Your task to perform on an android device: Do I have any events tomorrow? Image 0: 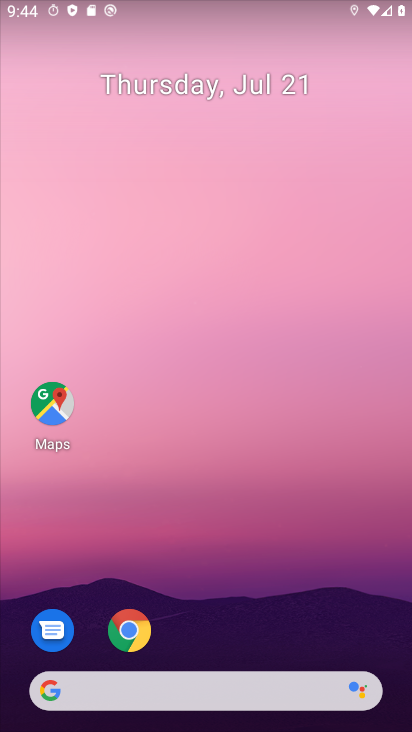
Step 0: press back button
Your task to perform on an android device: Do I have any events tomorrow? Image 1: 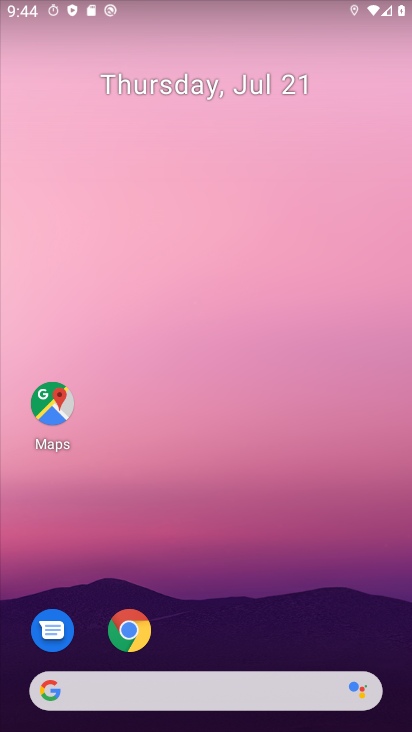
Step 1: press home button
Your task to perform on an android device: Do I have any events tomorrow? Image 2: 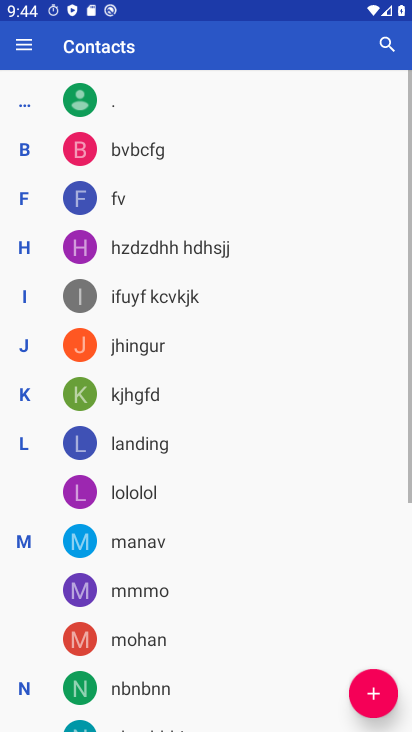
Step 2: click (246, 266)
Your task to perform on an android device: Do I have any events tomorrow? Image 3: 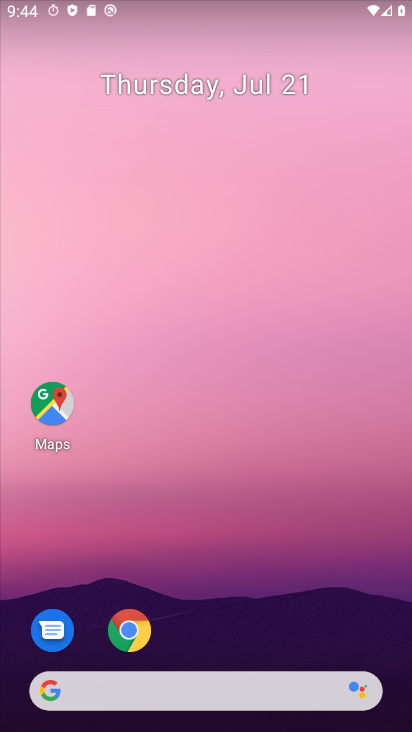
Step 3: drag from (205, 514) to (148, 120)
Your task to perform on an android device: Do I have any events tomorrow? Image 4: 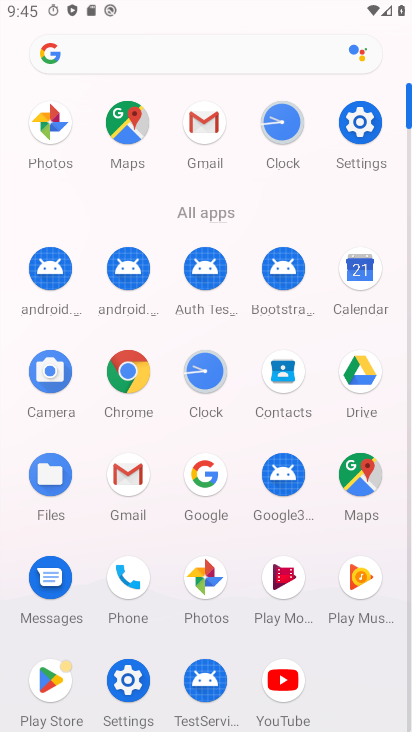
Step 4: click (198, 365)
Your task to perform on an android device: Do I have any events tomorrow? Image 5: 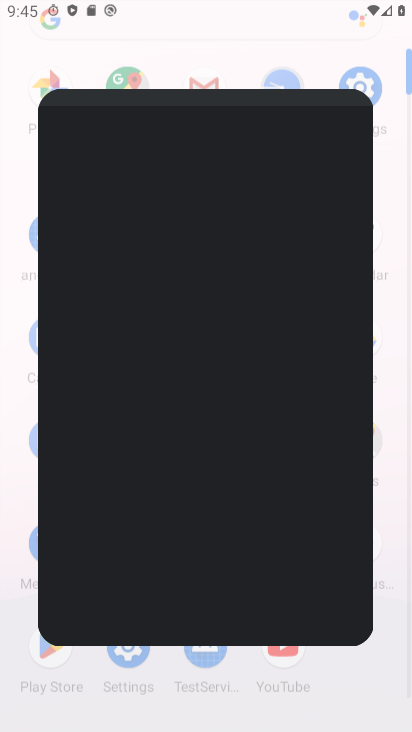
Step 5: click (365, 272)
Your task to perform on an android device: Do I have any events tomorrow? Image 6: 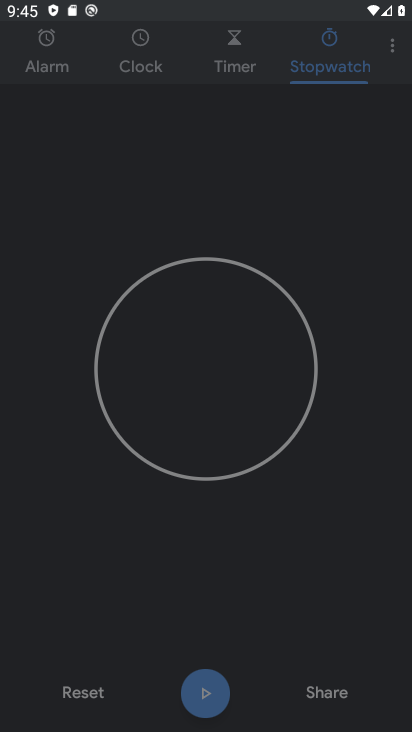
Step 6: click (366, 272)
Your task to perform on an android device: Do I have any events tomorrow? Image 7: 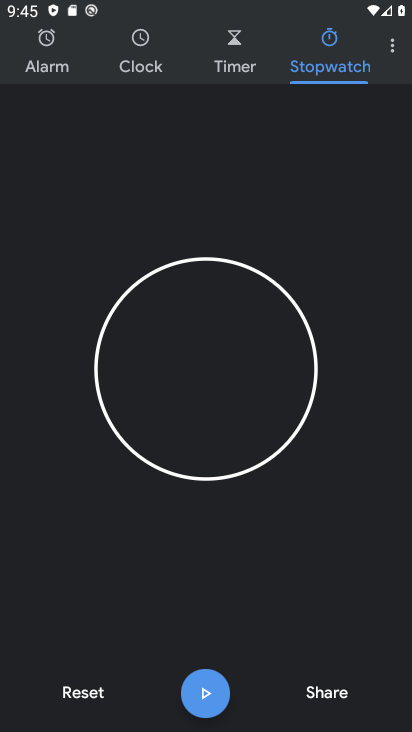
Step 7: click (366, 272)
Your task to perform on an android device: Do I have any events tomorrow? Image 8: 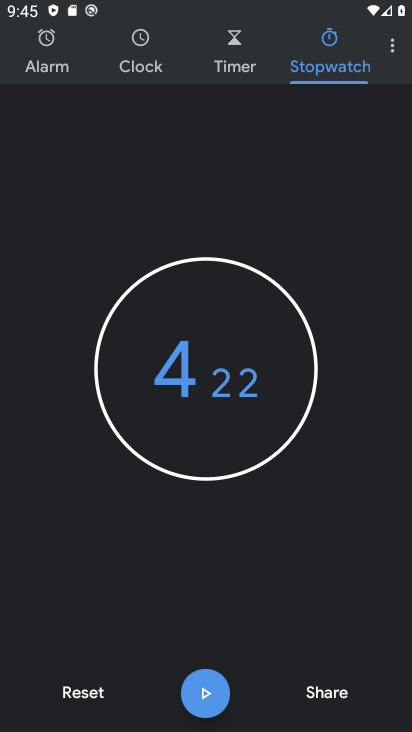
Step 8: press back button
Your task to perform on an android device: Do I have any events tomorrow? Image 9: 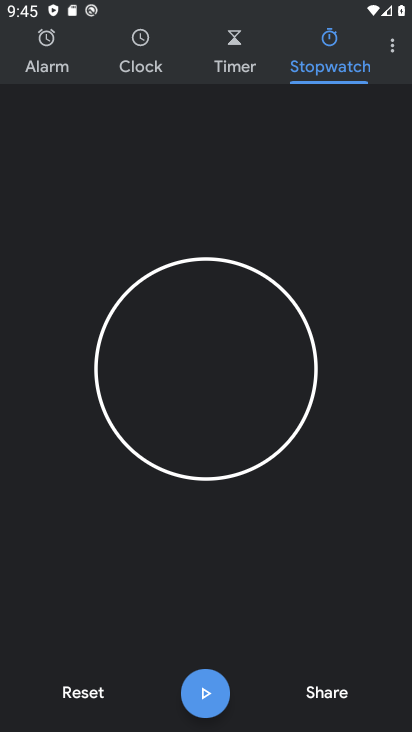
Step 9: press back button
Your task to perform on an android device: Do I have any events tomorrow? Image 10: 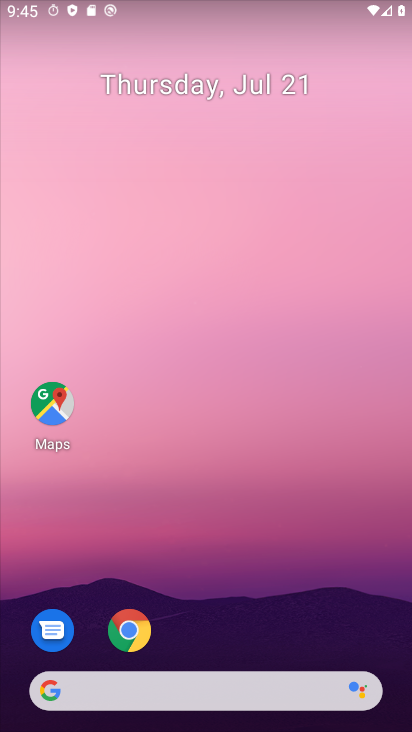
Step 10: drag from (280, 686) to (288, 83)
Your task to perform on an android device: Do I have any events tomorrow? Image 11: 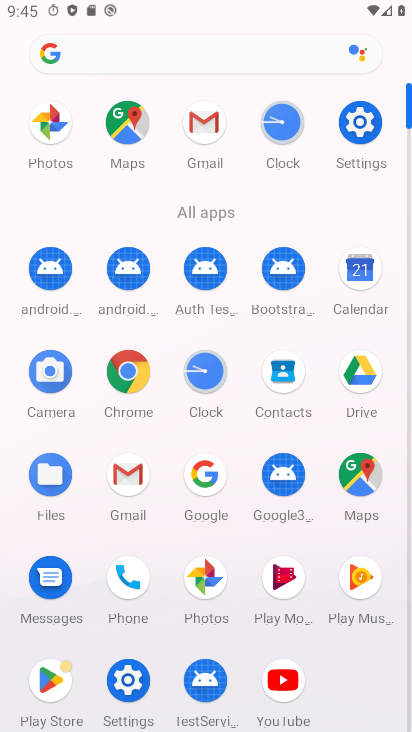
Step 11: click (357, 256)
Your task to perform on an android device: Do I have any events tomorrow? Image 12: 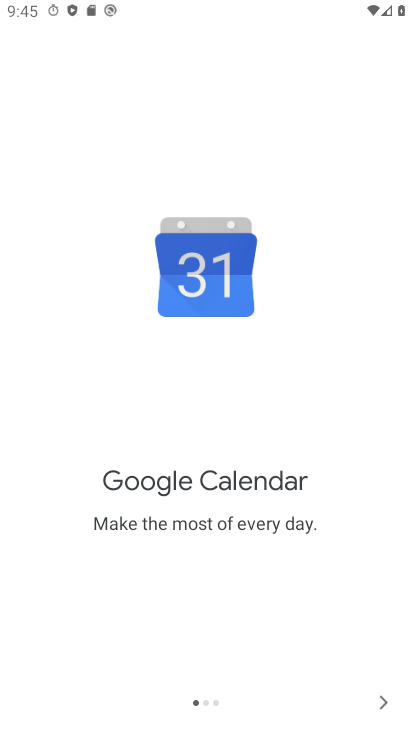
Step 12: click (384, 691)
Your task to perform on an android device: Do I have any events tomorrow? Image 13: 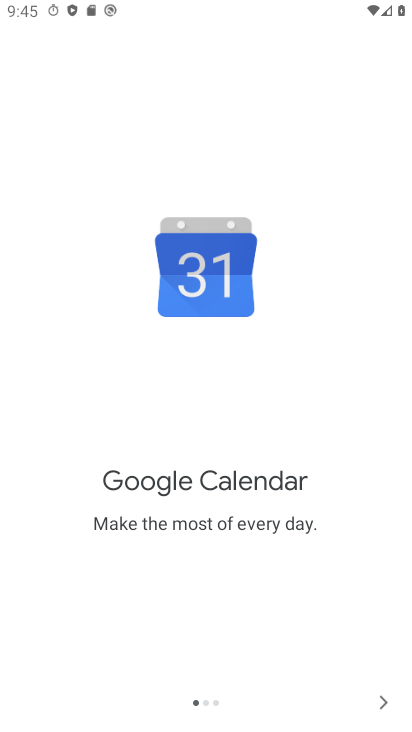
Step 13: click (384, 693)
Your task to perform on an android device: Do I have any events tomorrow? Image 14: 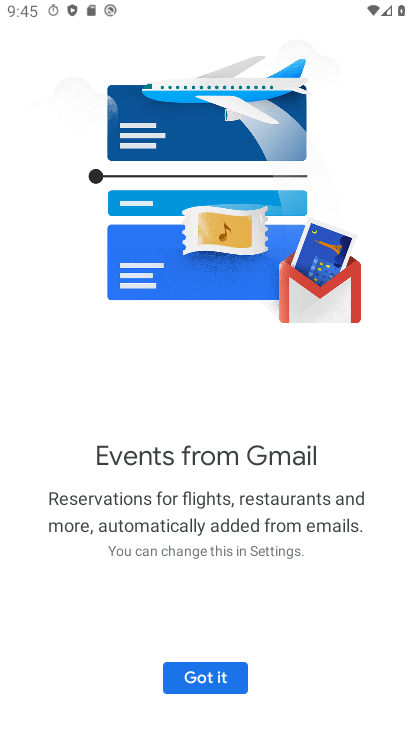
Step 14: click (221, 677)
Your task to perform on an android device: Do I have any events tomorrow? Image 15: 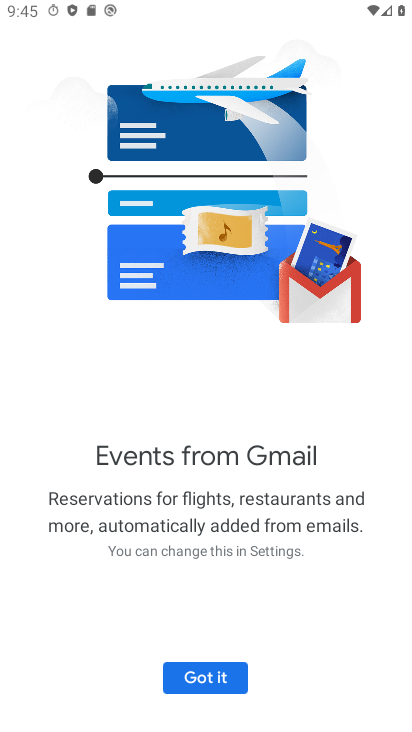
Step 15: click (229, 660)
Your task to perform on an android device: Do I have any events tomorrow? Image 16: 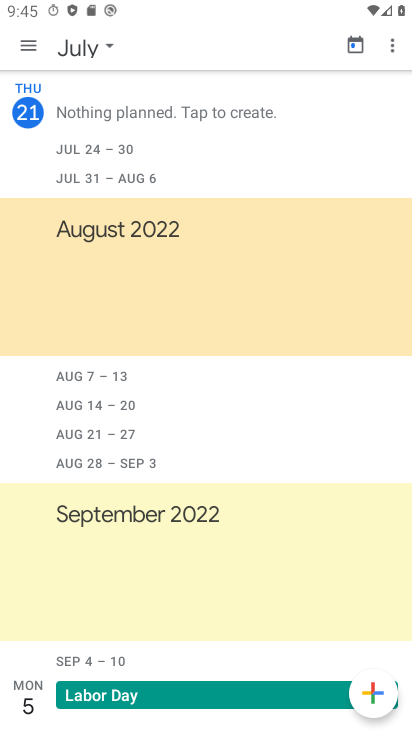
Step 16: click (106, 46)
Your task to perform on an android device: Do I have any events tomorrow? Image 17: 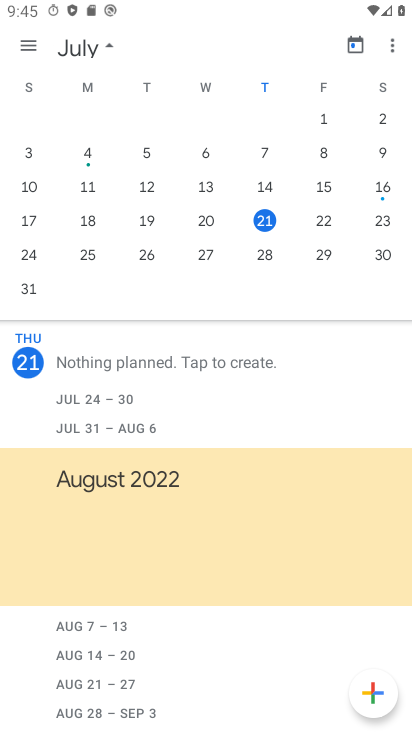
Step 17: click (382, 222)
Your task to perform on an android device: Do I have any events tomorrow? Image 18: 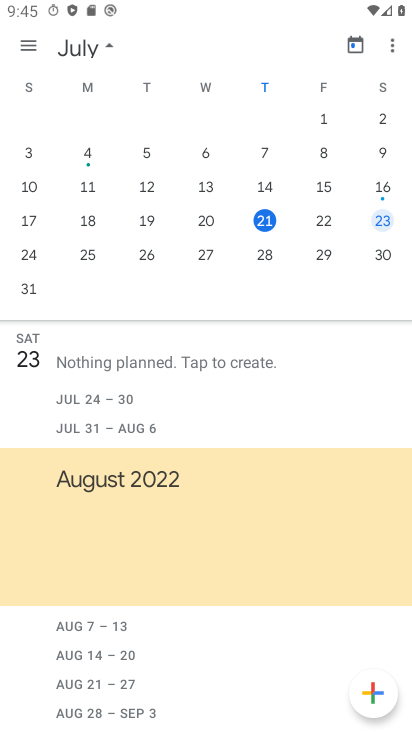
Step 18: click (390, 215)
Your task to perform on an android device: Do I have any events tomorrow? Image 19: 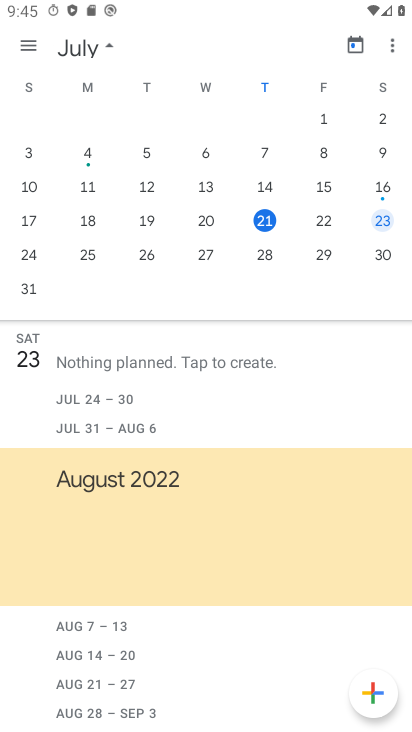
Step 19: click (392, 222)
Your task to perform on an android device: Do I have any events tomorrow? Image 20: 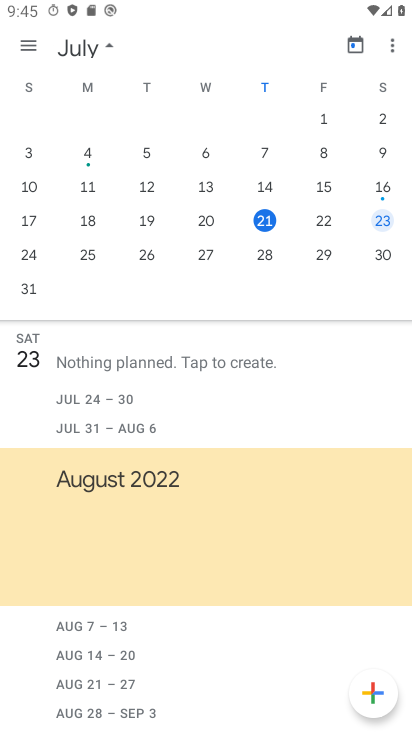
Step 20: task complete